Your task to perform on an android device: Go to notification settings Image 0: 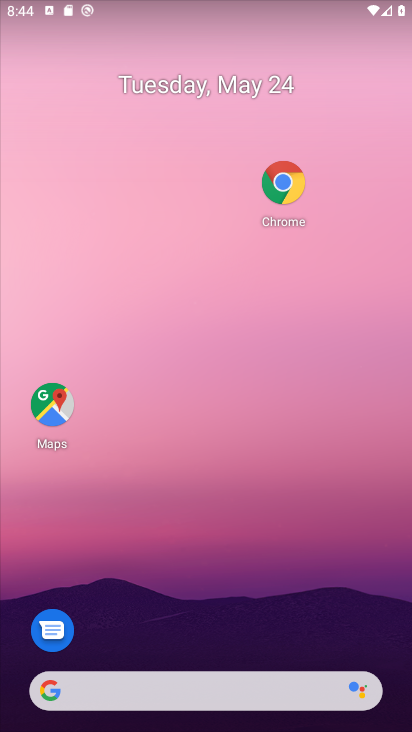
Step 0: drag from (211, 711) to (261, 142)
Your task to perform on an android device: Go to notification settings Image 1: 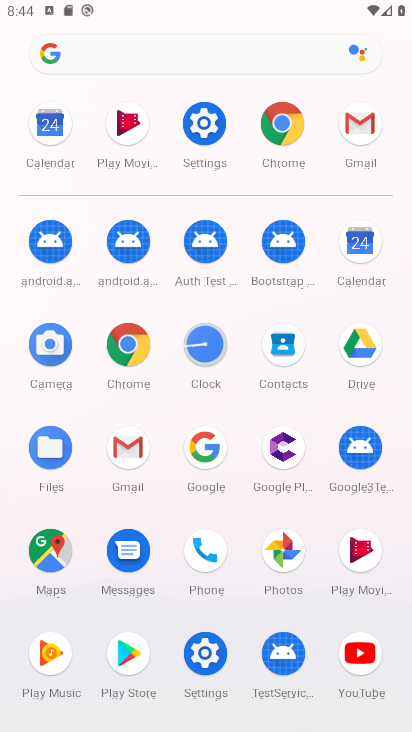
Step 1: click (214, 126)
Your task to perform on an android device: Go to notification settings Image 2: 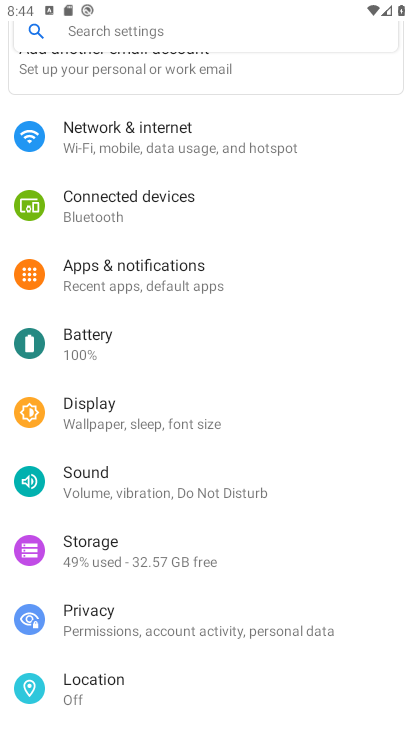
Step 2: click (158, 31)
Your task to perform on an android device: Go to notification settings Image 3: 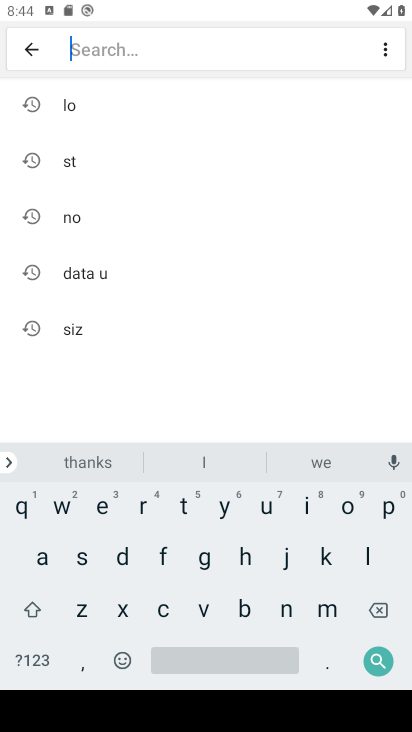
Step 3: click (76, 223)
Your task to perform on an android device: Go to notification settings Image 4: 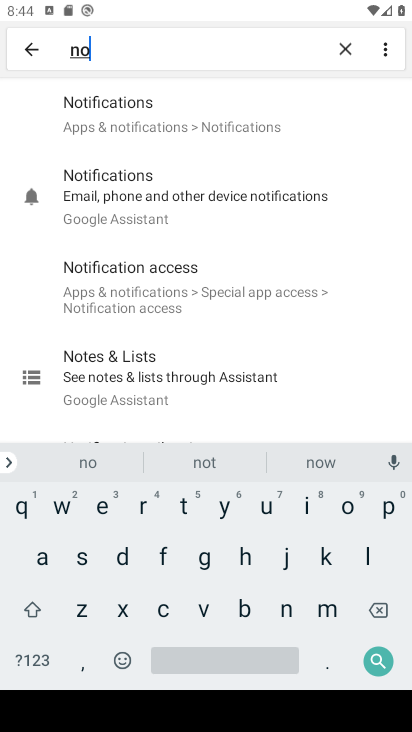
Step 4: click (170, 113)
Your task to perform on an android device: Go to notification settings Image 5: 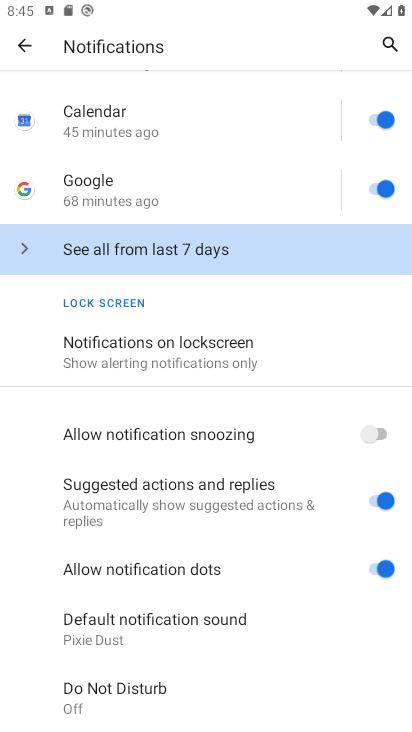
Step 5: click (129, 355)
Your task to perform on an android device: Go to notification settings Image 6: 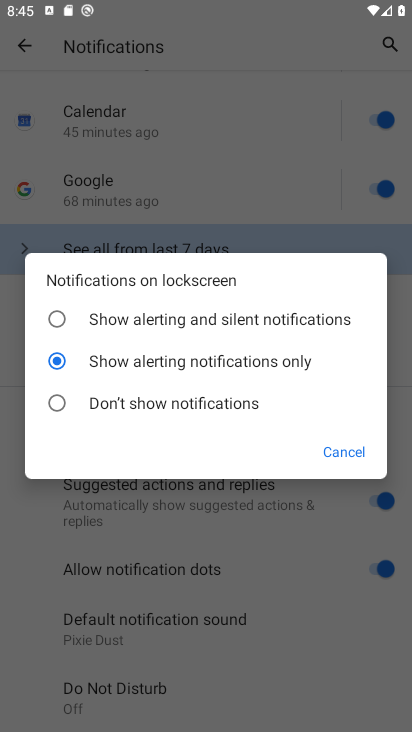
Step 6: task complete